Your task to perform on an android device: set default search engine in the chrome app Image 0: 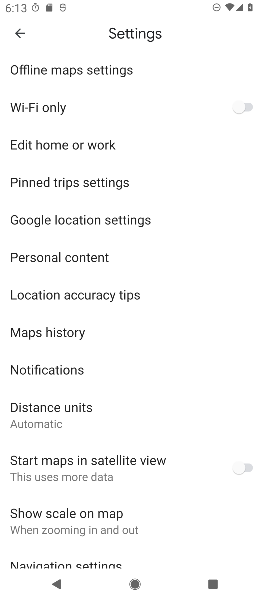
Step 0: press home button
Your task to perform on an android device: set default search engine in the chrome app Image 1: 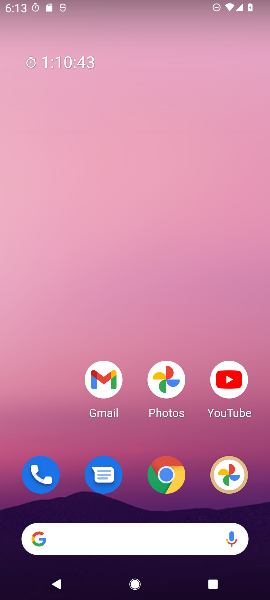
Step 1: drag from (53, 437) to (51, 166)
Your task to perform on an android device: set default search engine in the chrome app Image 2: 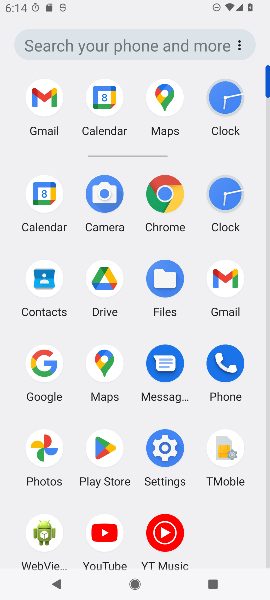
Step 2: click (165, 194)
Your task to perform on an android device: set default search engine in the chrome app Image 3: 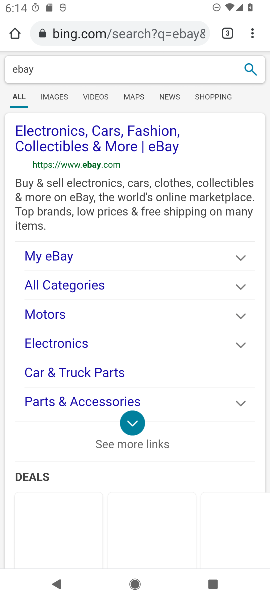
Step 3: click (251, 32)
Your task to perform on an android device: set default search engine in the chrome app Image 4: 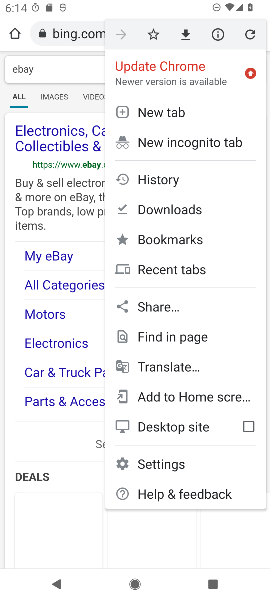
Step 4: click (179, 469)
Your task to perform on an android device: set default search engine in the chrome app Image 5: 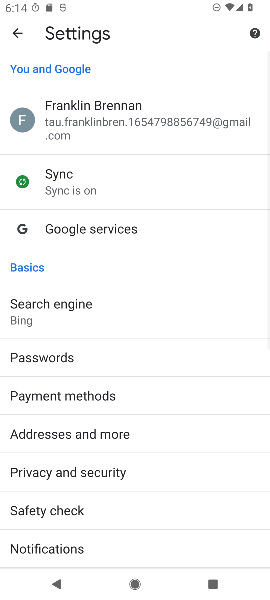
Step 5: drag from (201, 400) to (201, 329)
Your task to perform on an android device: set default search engine in the chrome app Image 6: 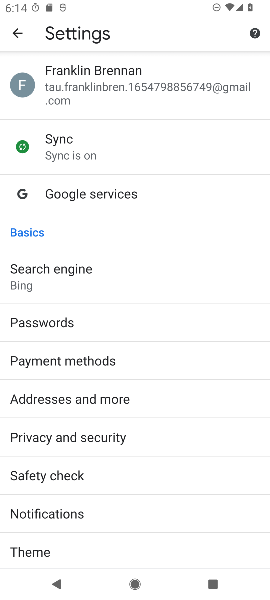
Step 6: drag from (187, 444) to (186, 362)
Your task to perform on an android device: set default search engine in the chrome app Image 7: 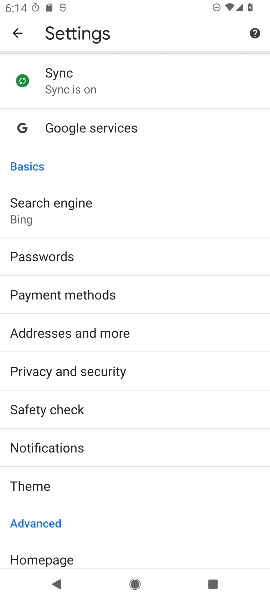
Step 7: drag from (179, 472) to (182, 351)
Your task to perform on an android device: set default search engine in the chrome app Image 8: 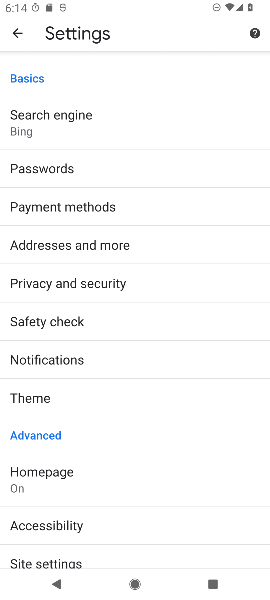
Step 8: drag from (191, 470) to (201, 340)
Your task to perform on an android device: set default search engine in the chrome app Image 9: 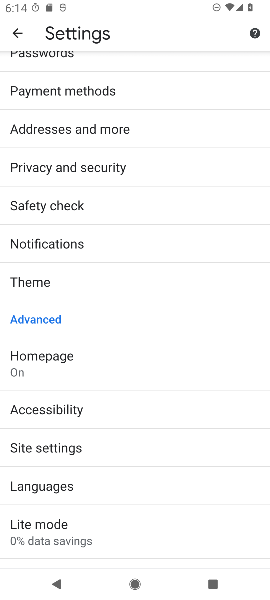
Step 9: drag from (185, 505) to (193, 352)
Your task to perform on an android device: set default search engine in the chrome app Image 10: 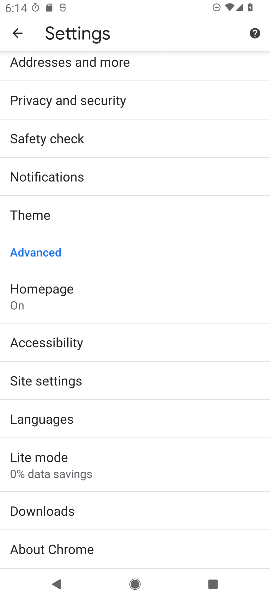
Step 10: drag from (206, 224) to (205, 308)
Your task to perform on an android device: set default search engine in the chrome app Image 11: 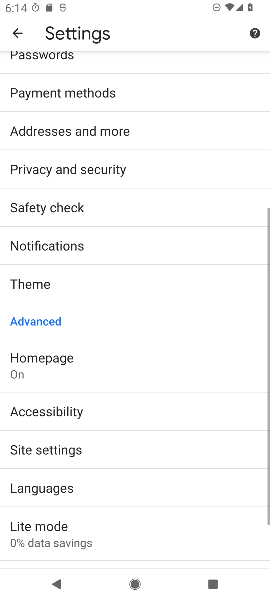
Step 11: drag from (207, 167) to (210, 274)
Your task to perform on an android device: set default search engine in the chrome app Image 12: 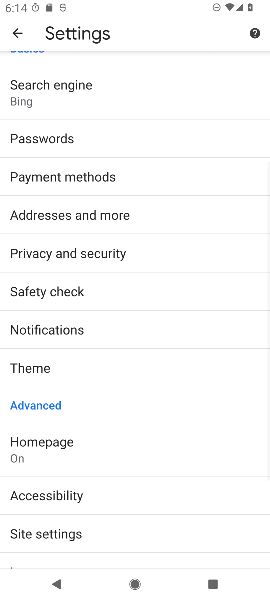
Step 12: drag from (199, 155) to (204, 275)
Your task to perform on an android device: set default search engine in the chrome app Image 13: 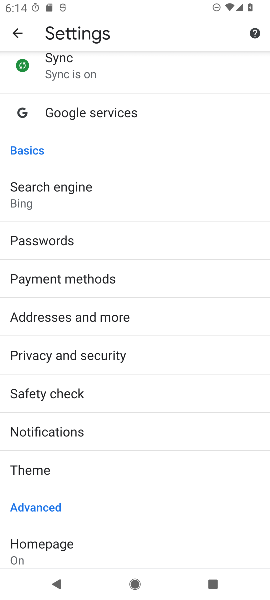
Step 13: drag from (192, 131) to (195, 250)
Your task to perform on an android device: set default search engine in the chrome app Image 14: 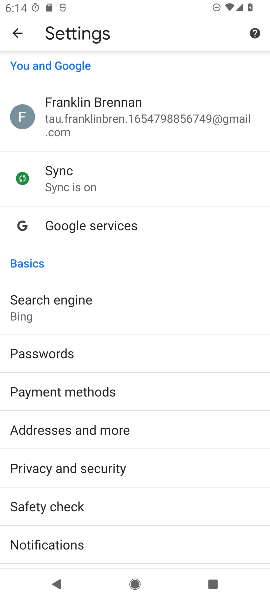
Step 14: drag from (176, 158) to (177, 301)
Your task to perform on an android device: set default search engine in the chrome app Image 15: 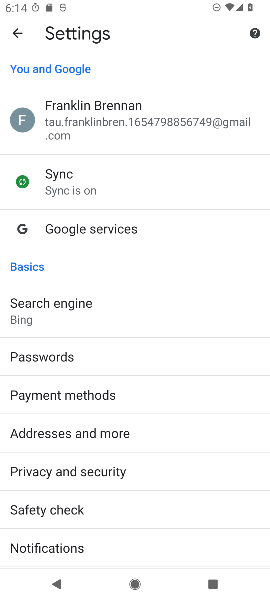
Step 15: click (73, 313)
Your task to perform on an android device: set default search engine in the chrome app Image 16: 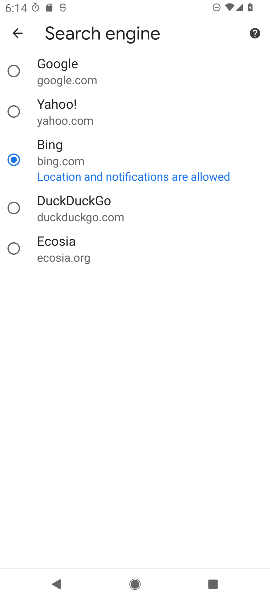
Step 16: click (21, 70)
Your task to perform on an android device: set default search engine in the chrome app Image 17: 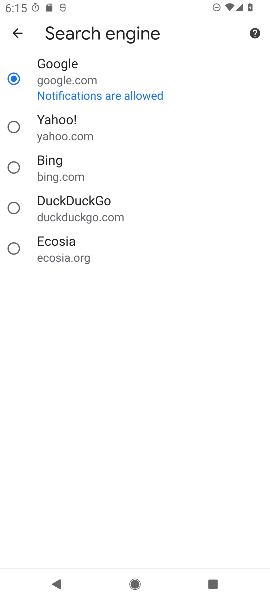
Step 17: task complete